Your task to perform on an android device: turn off notifications settings in the gmail app Image 0: 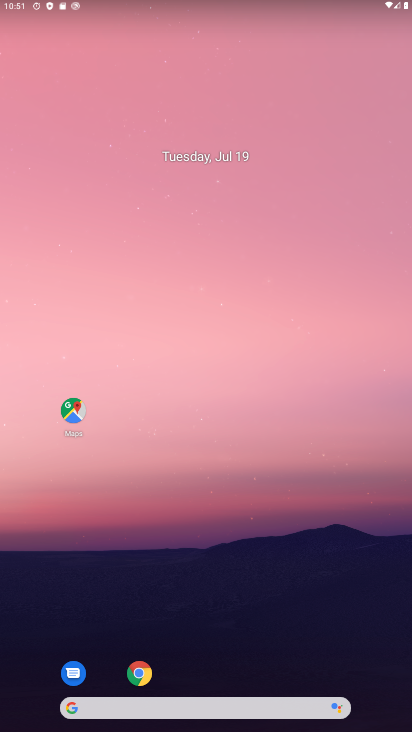
Step 0: drag from (211, 712) to (354, 156)
Your task to perform on an android device: turn off notifications settings in the gmail app Image 1: 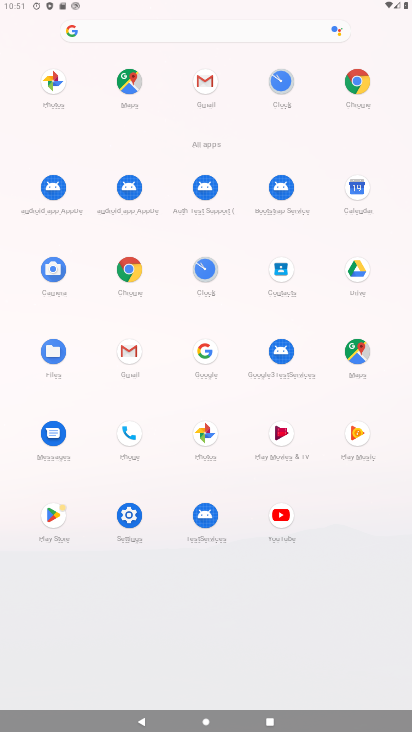
Step 1: click (124, 365)
Your task to perform on an android device: turn off notifications settings in the gmail app Image 2: 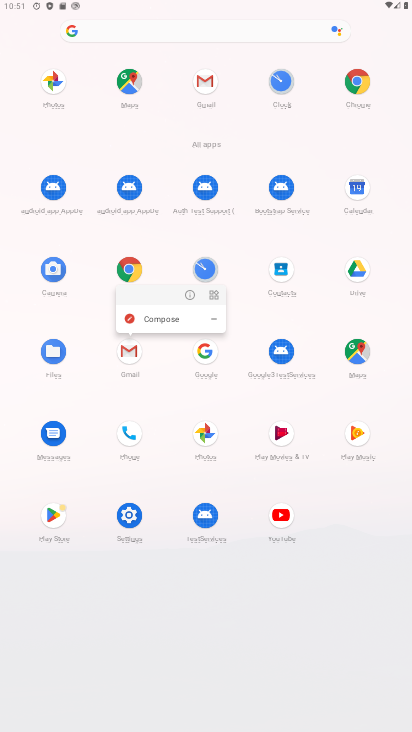
Step 2: click (135, 357)
Your task to perform on an android device: turn off notifications settings in the gmail app Image 3: 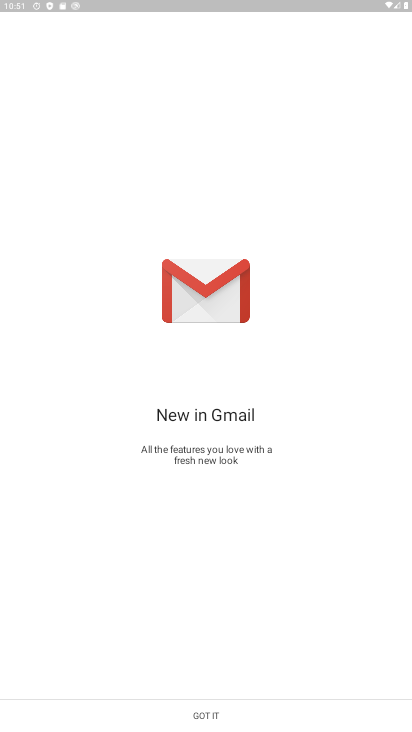
Step 3: click (195, 730)
Your task to perform on an android device: turn off notifications settings in the gmail app Image 4: 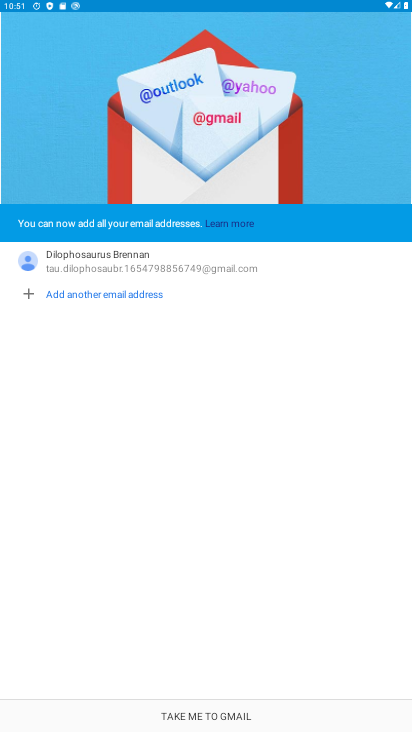
Step 4: click (208, 720)
Your task to perform on an android device: turn off notifications settings in the gmail app Image 5: 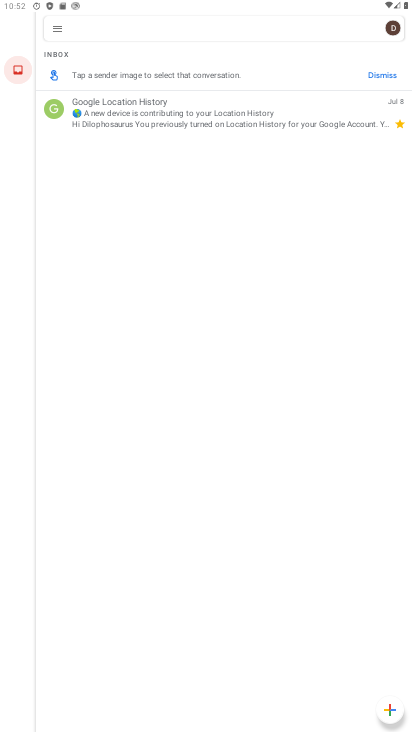
Step 5: click (57, 33)
Your task to perform on an android device: turn off notifications settings in the gmail app Image 6: 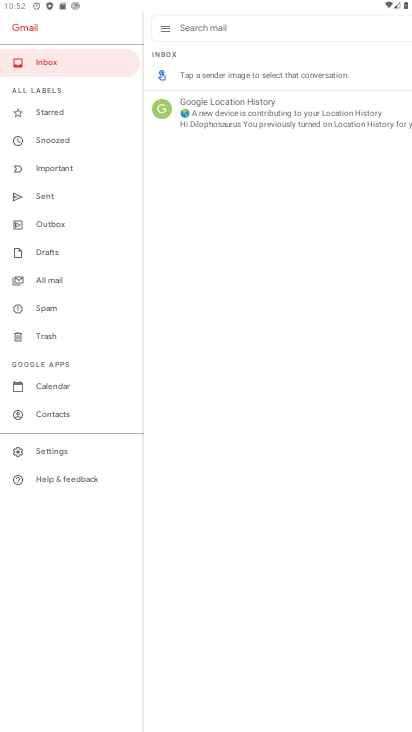
Step 6: click (72, 445)
Your task to perform on an android device: turn off notifications settings in the gmail app Image 7: 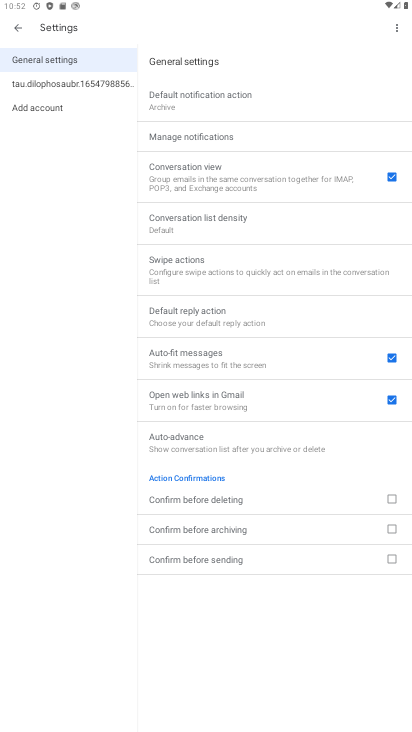
Step 7: click (115, 85)
Your task to perform on an android device: turn off notifications settings in the gmail app Image 8: 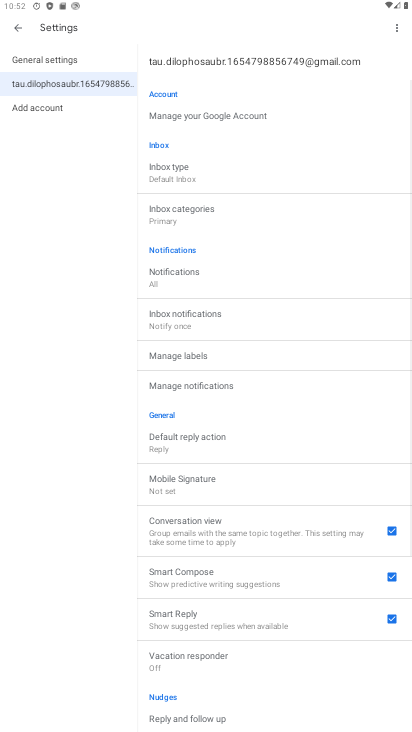
Step 8: click (230, 388)
Your task to perform on an android device: turn off notifications settings in the gmail app Image 9: 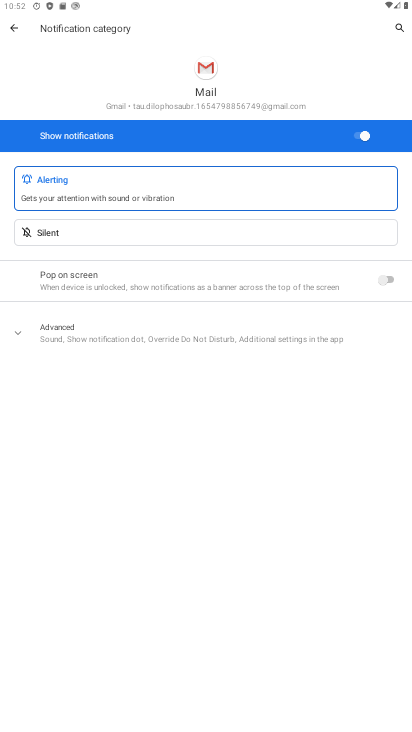
Step 9: click (354, 134)
Your task to perform on an android device: turn off notifications settings in the gmail app Image 10: 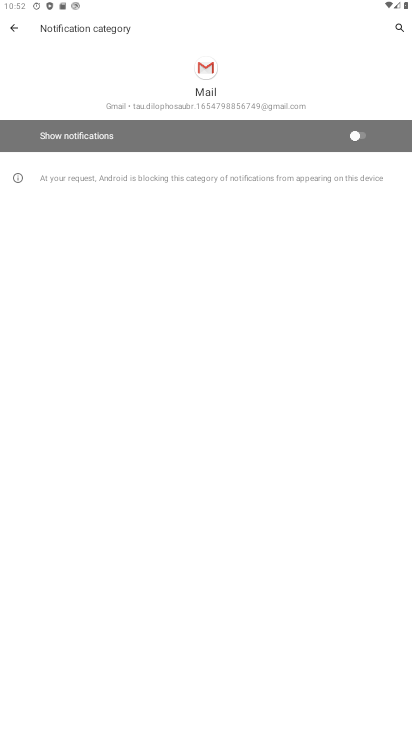
Step 10: task complete